Your task to perform on an android device: turn off sleep mode Image 0: 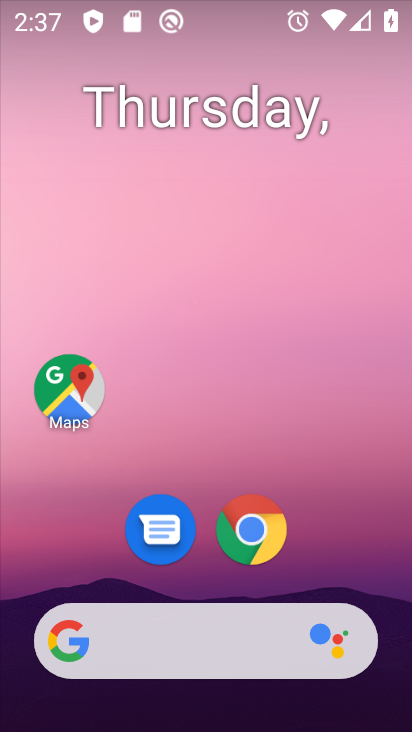
Step 0: drag from (195, 715) to (165, 21)
Your task to perform on an android device: turn off sleep mode Image 1: 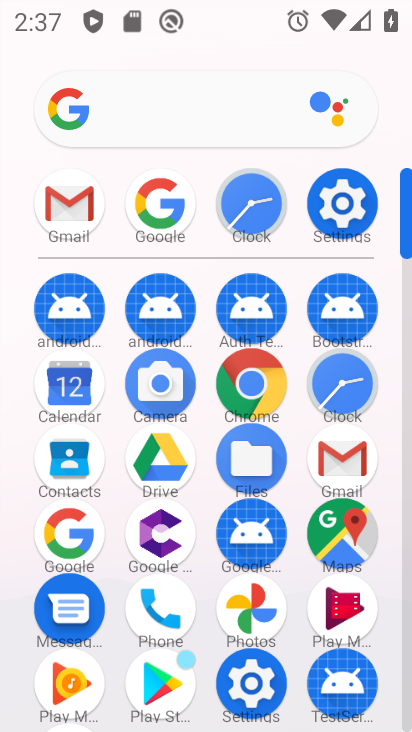
Step 1: click (323, 217)
Your task to perform on an android device: turn off sleep mode Image 2: 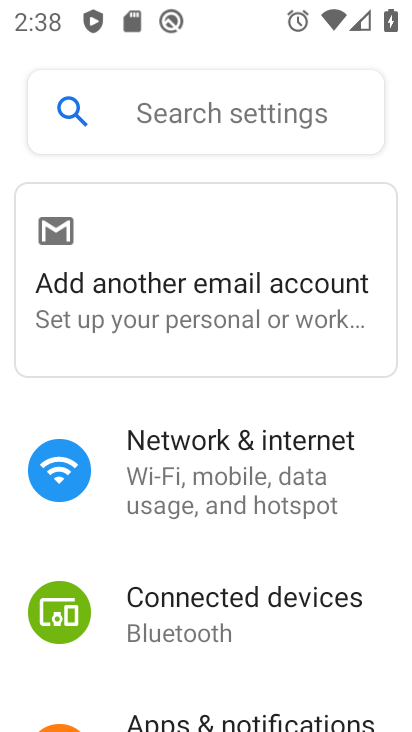
Step 2: drag from (278, 718) to (170, 129)
Your task to perform on an android device: turn off sleep mode Image 3: 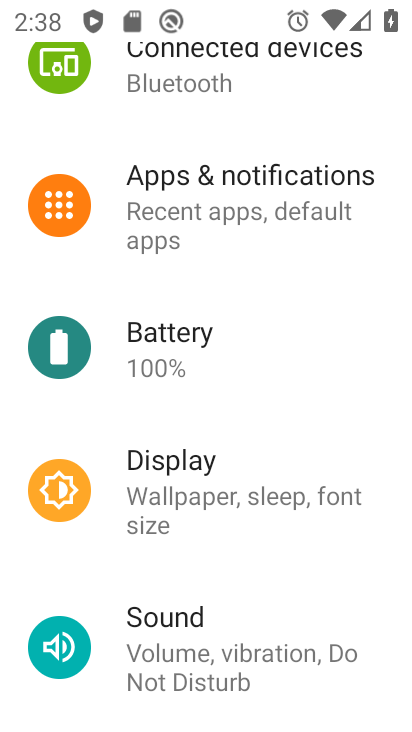
Step 3: click (241, 495)
Your task to perform on an android device: turn off sleep mode Image 4: 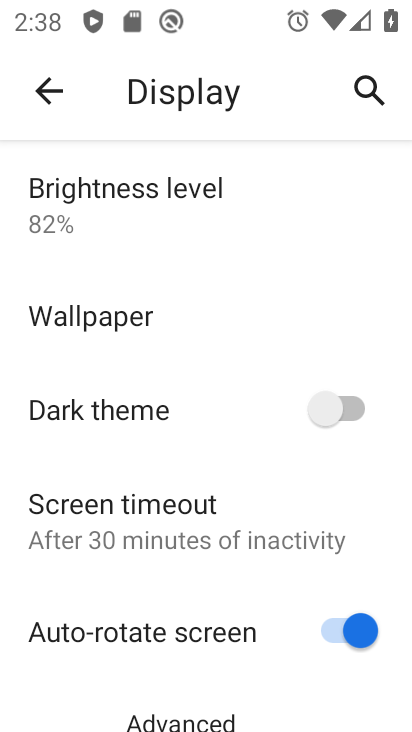
Step 4: task complete